Your task to perform on an android device: add a contact in the contacts app Image 0: 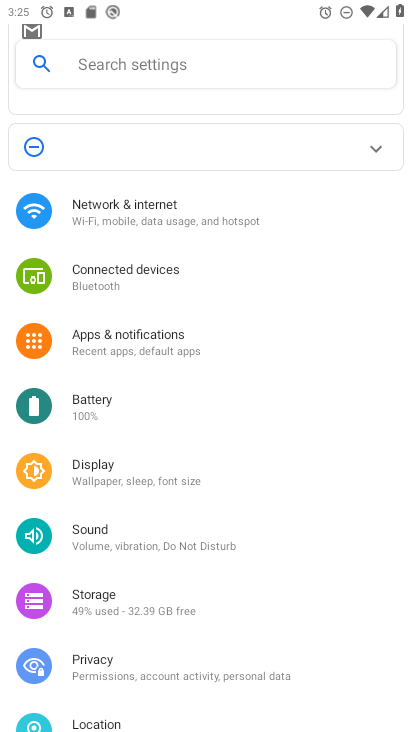
Step 0: press home button
Your task to perform on an android device: add a contact in the contacts app Image 1: 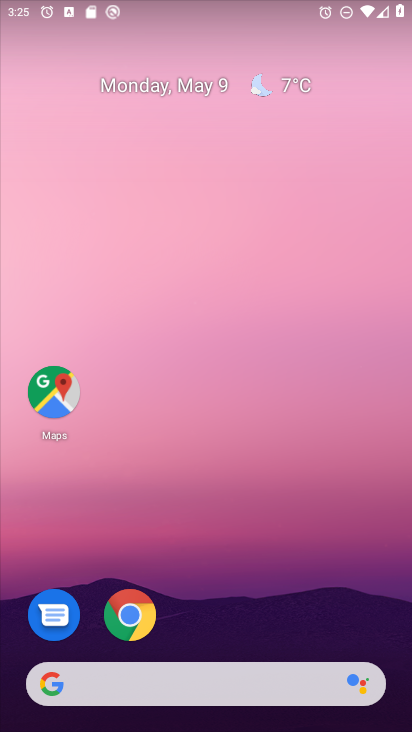
Step 1: drag from (318, 614) to (272, 91)
Your task to perform on an android device: add a contact in the contacts app Image 2: 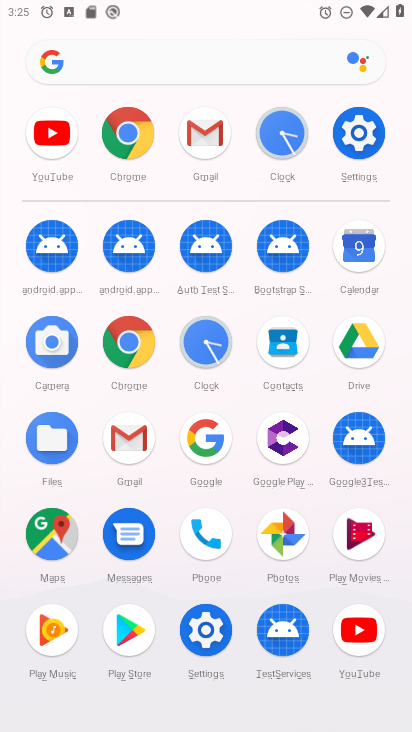
Step 2: click (281, 339)
Your task to perform on an android device: add a contact in the contacts app Image 3: 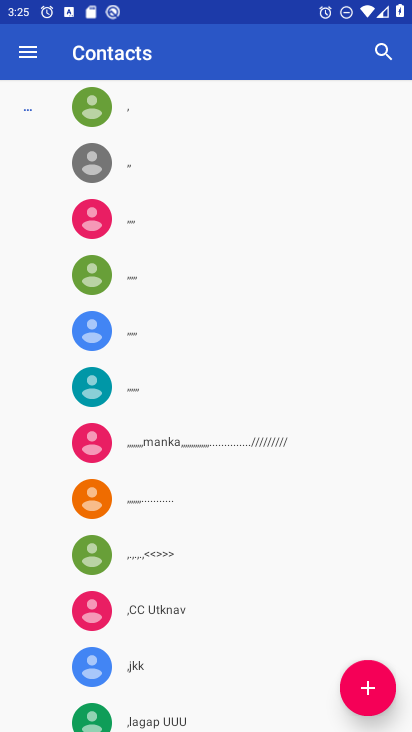
Step 3: click (367, 687)
Your task to perform on an android device: add a contact in the contacts app Image 4: 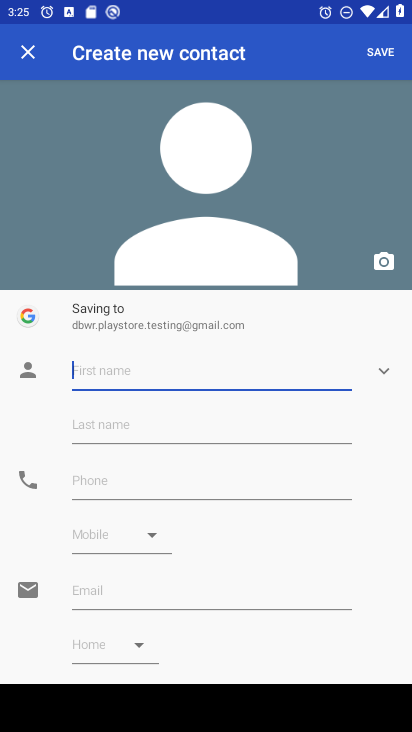
Step 4: type "ddhshg"
Your task to perform on an android device: add a contact in the contacts app Image 5: 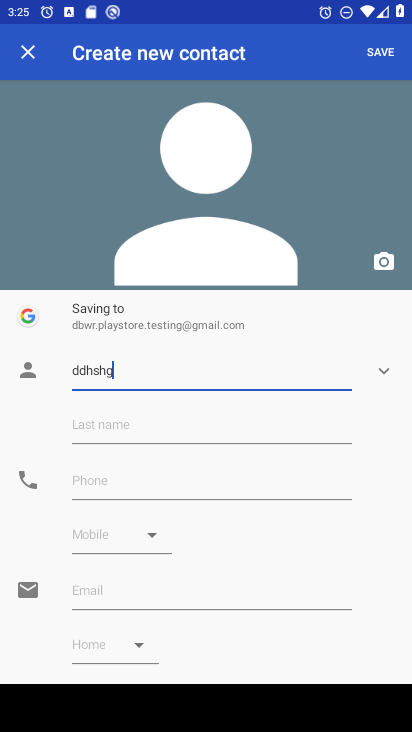
Step 5: click (129, 494)
Your task to perform on an android device: add a contact in the contacts app Image 6: 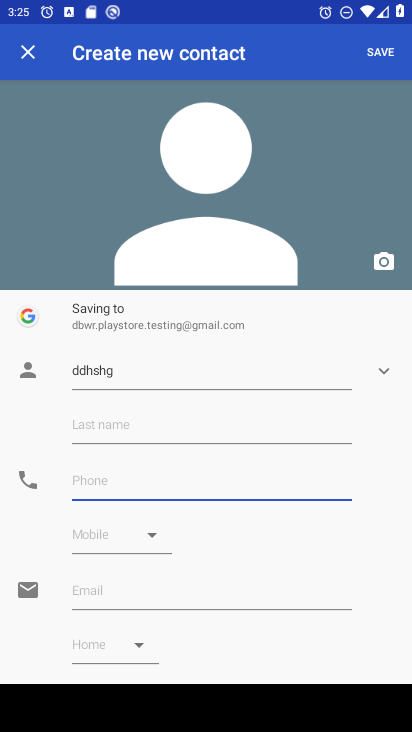
Step 6: type "6774331297"
Your task to perform on an android device: add a contact in the contacts app Image 7: 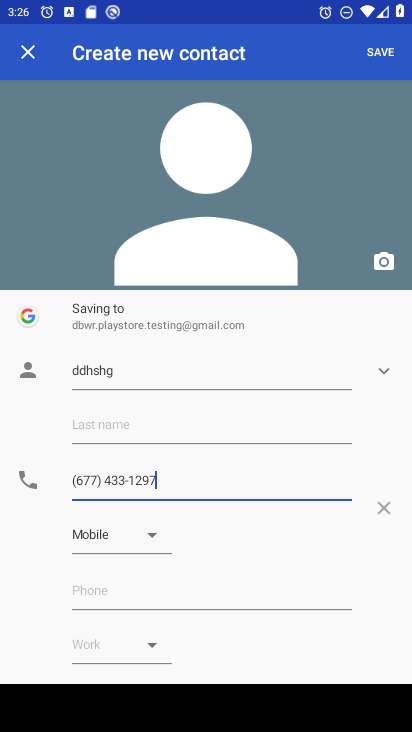
Step 7: click (150, 538)
Your task to perform on an android device: add a contact in the contacts app Image 8: 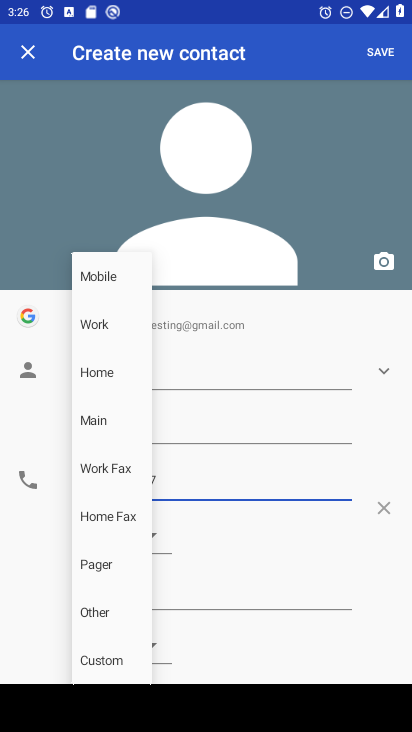
Step 8: click (94, 320)
Your task to perform on an android device: add a contact in the contacts app Image 9: 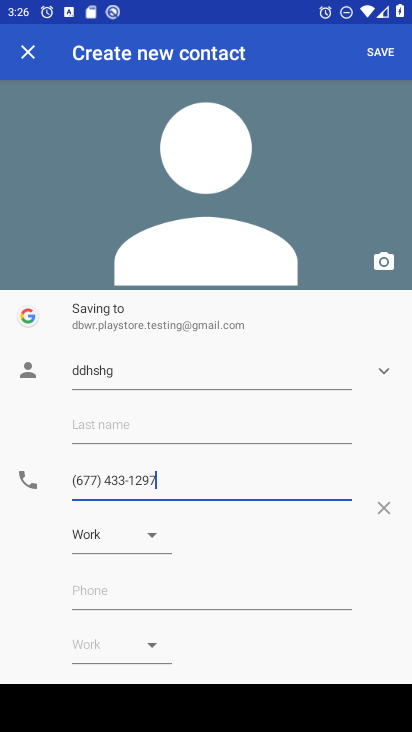
Step 9: click (372, 50)
Your task to perform on an android device: add a contact in the contacts app Image 10: 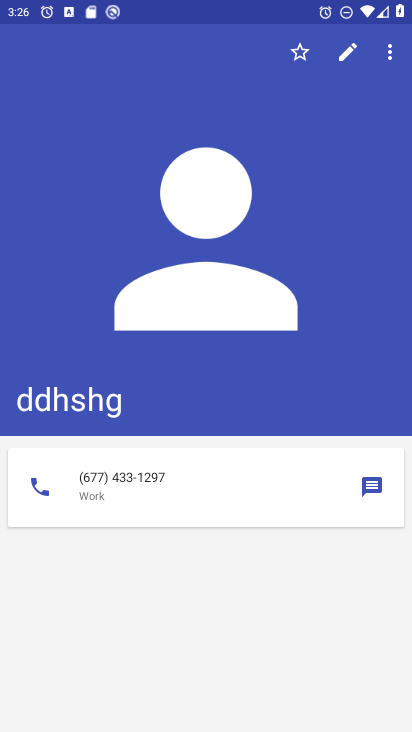
Step 10: task complete